Your task to perform on an android device: What's on my calendar tomorrow? Image 0: 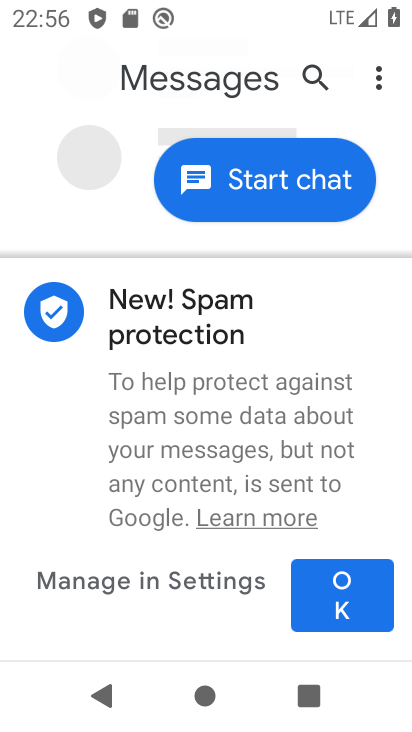
Step 0: press home button
Your task to perform on an android device: What's on my calendar tomorrow? Image 1: 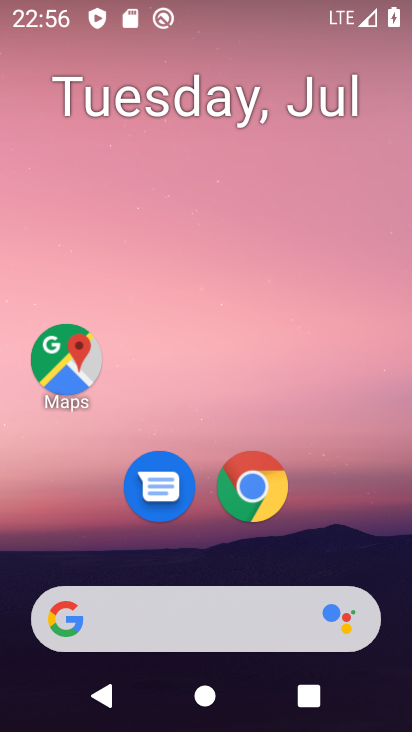
Step 1: drag from (375, 531) to (352, 233)
Your task to perform on an android device: What's on my calendar tomorrow? Image 2: 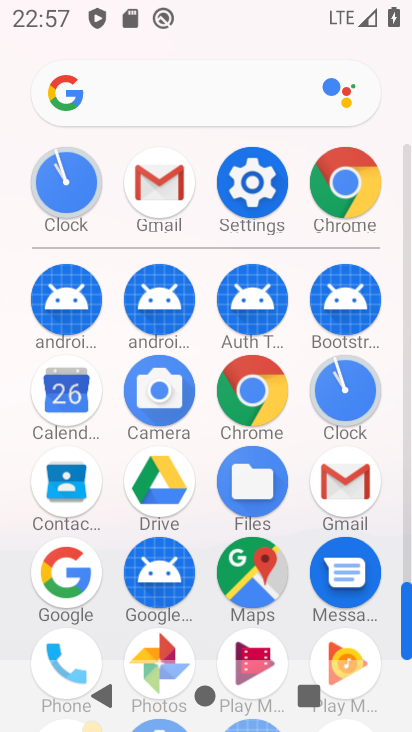
Step 2: click (69, 404)
Your task to perform on an android device: What's on my calendar tomorrow? Image 3: 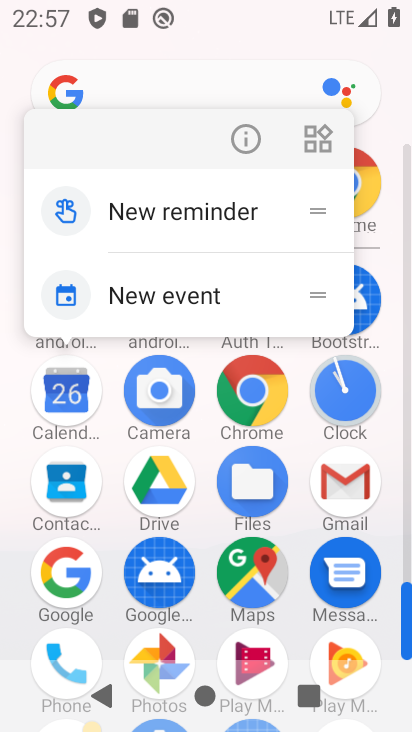
Step 3: click (69, 404)
Your task to perform on an android device: What's on my calendar tomorrow? Image 4: 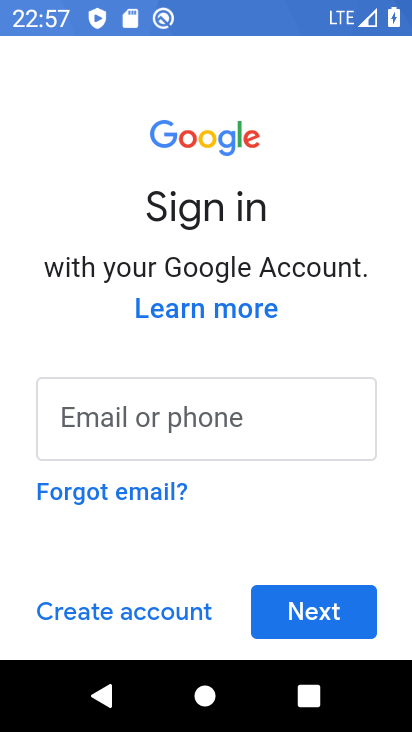
Step 4: task complete